Your task to perform on an android device: Open the Play Movies app and select the watchlist tab. Image 0: 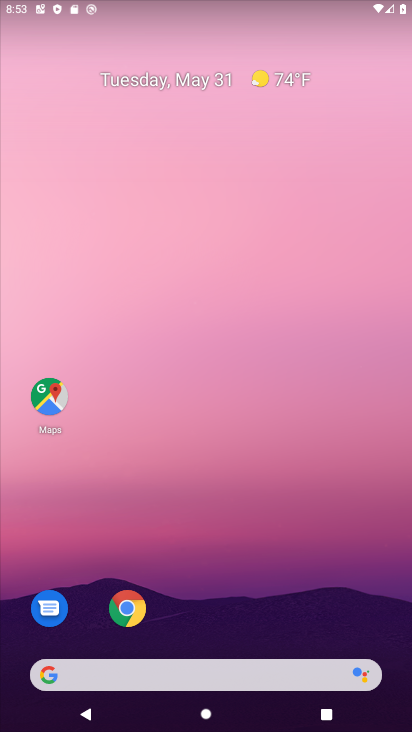
Step 0: drag from (195, 649) to (139, 165)
Your task to perform on an android device: Open the Play Movies app and select the watchlist tab. Image 1: 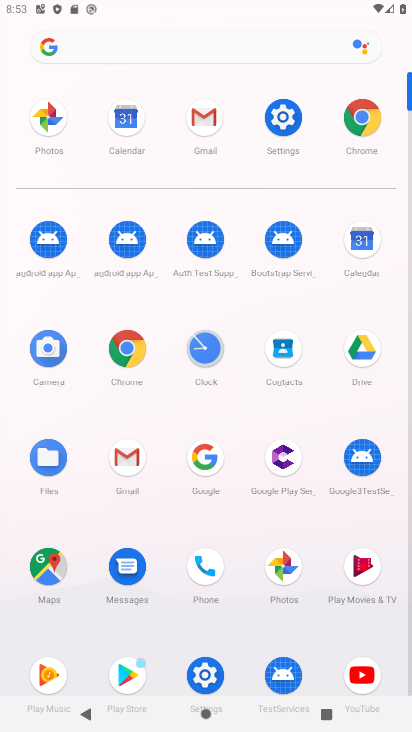
Step 1: click (363, 563)
Your task to perform on an android device: Open the Play Movies app and select the watchlist tab. Image 2: 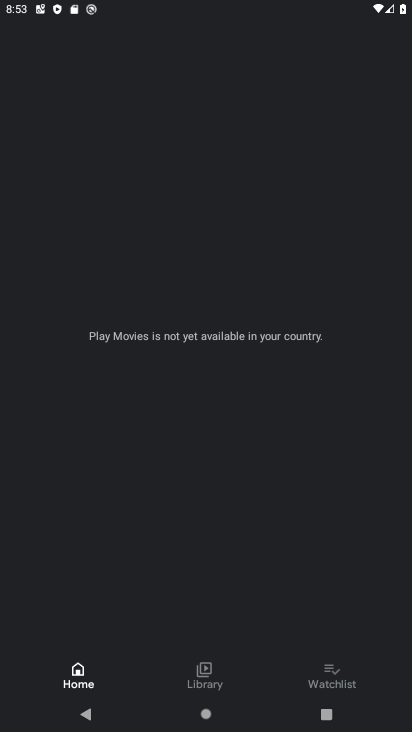
Step 2: click (331, 664)
Your task to perform on an android device: Open the Play Movies app and select the watchlist tab. Image 3: 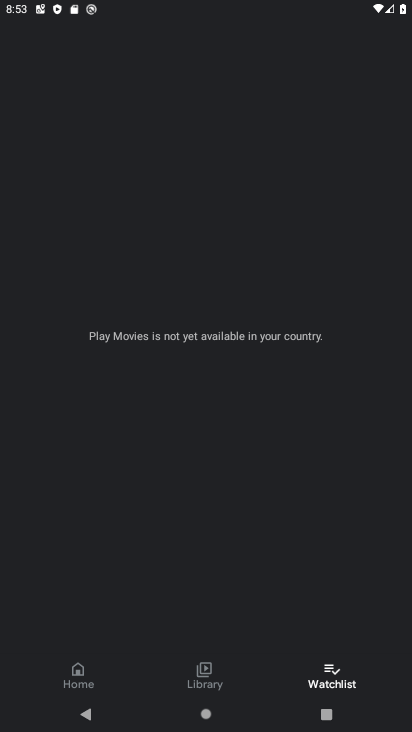
Step 3: task complete